Your task to perform on an android device: empty trash in the gmail app Image 0: 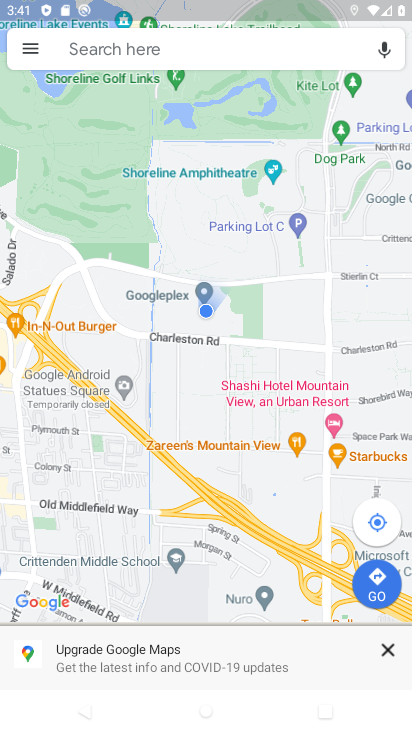
Step 0: click (123, 594)
Your task to perform on an android device: empty trash in the gmail app Image 1: 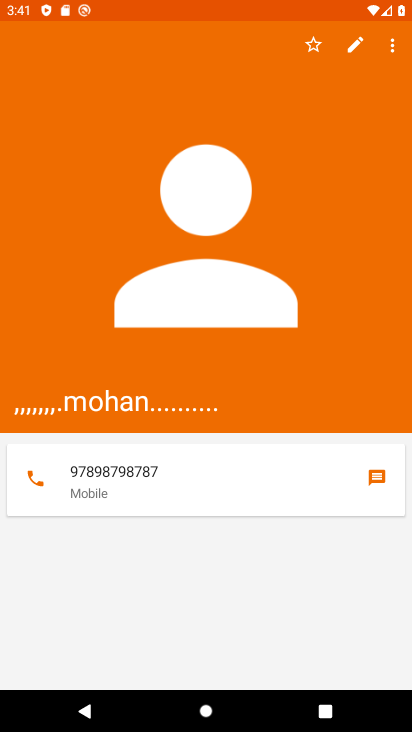
Step 1: press back button
Your task to perform on an android device: empty trash in the gmail app Image 2: 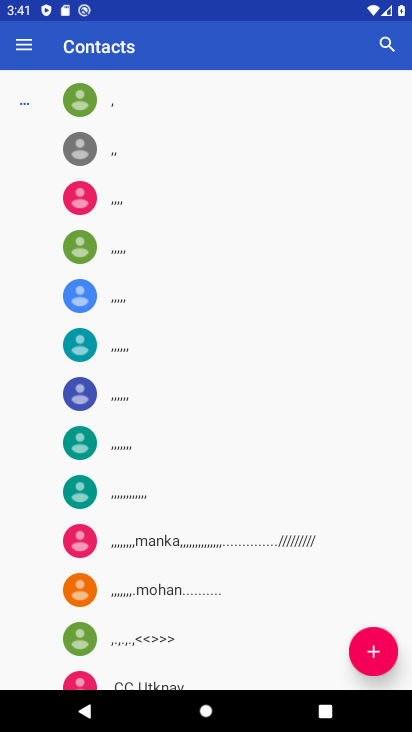
Step 2: press home button
Your task to perform on an android device: empty trash in the gmail app Image 3: 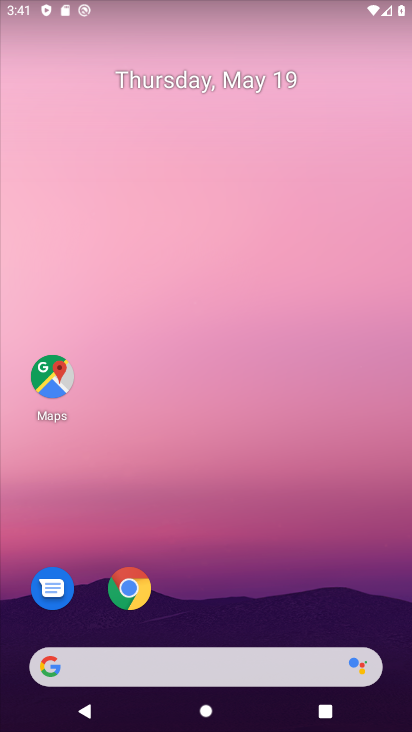
Step 3: drag from (224, 500) to (266, 113)
Your task to perform on an android device: empty trash in the gmail app Image 4: 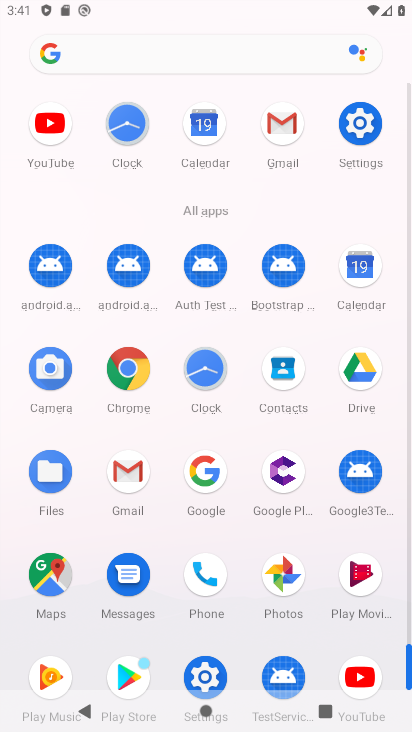
Step 4: click (141, 485)
Your task to perform on an android device: empty trash in the gmail app Image 5: 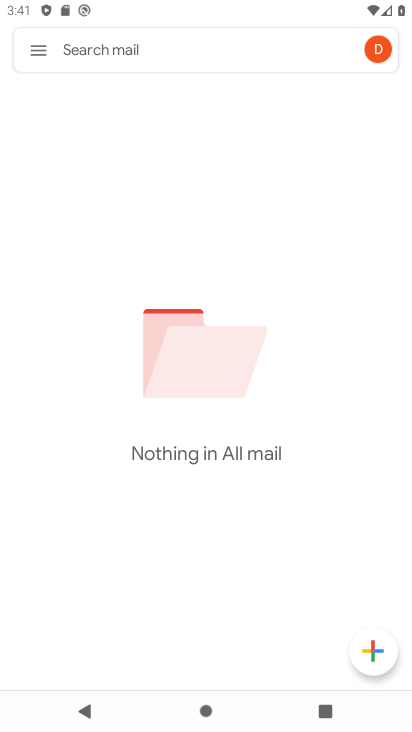
Step 5: click (35, 46)
Your task to perform on an android device: empty trash in the gmail app Image 6: 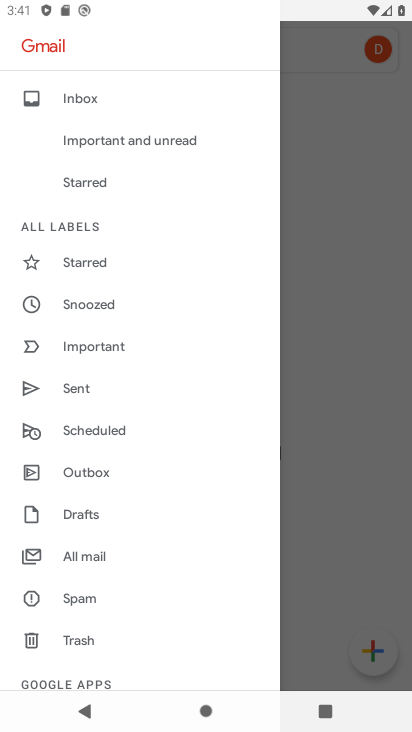
Step 6: click (71, 646)
Your task to perform on an android device: empty trash in the gmail app Image 7: 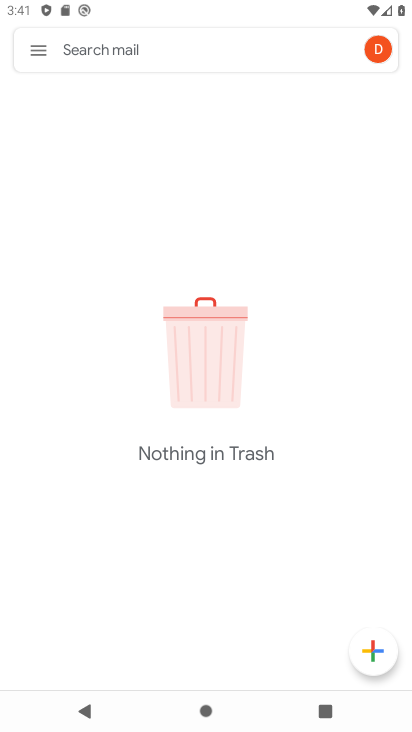
Step 7: task complete